Your task to perform on an android device: Do I have any events tomorrow? Image 0: 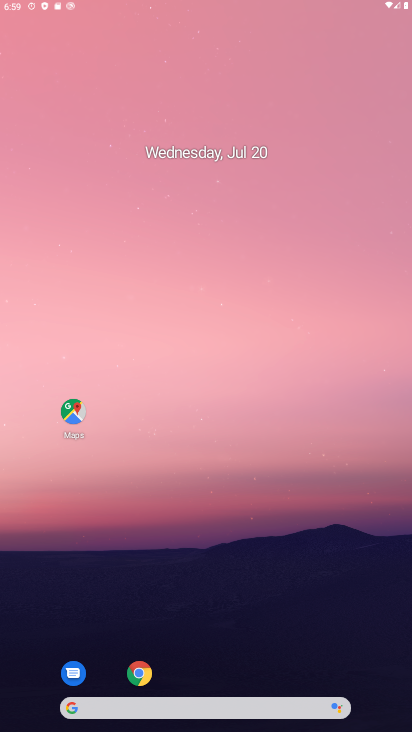
Step 0: drag from (360, 649) to (172, 13)
Your task to perform on an android device: Do I have any events tomorrow? Image 1: 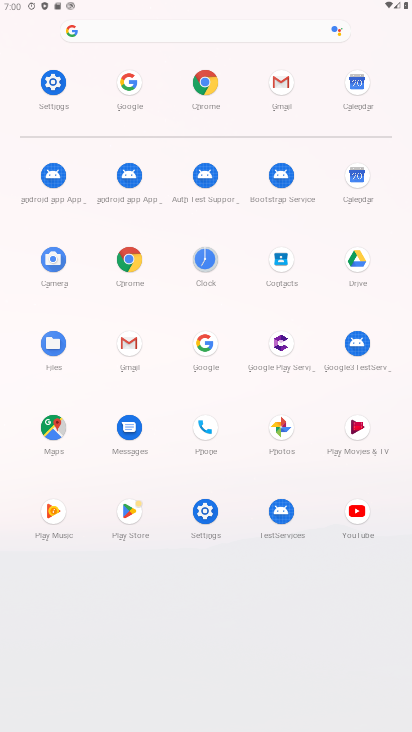
Step 1: click (355, 166)
Your task to perform on an android device: Do I have any events tomorrow? Image 2: 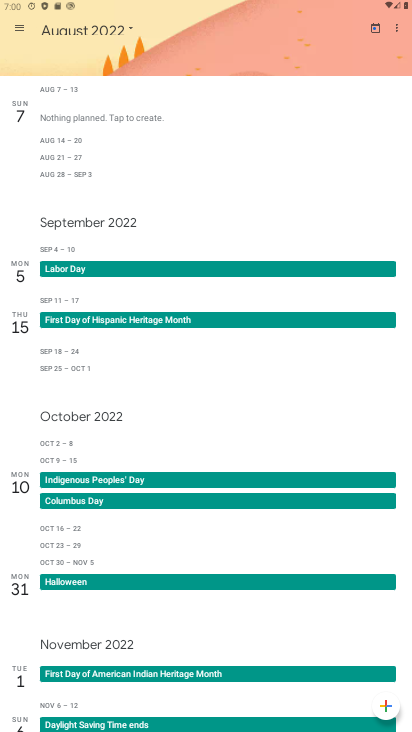
Step 2: task complete